Your task to perform on an android device: turn on showing notifications on the lock screen Image 0: 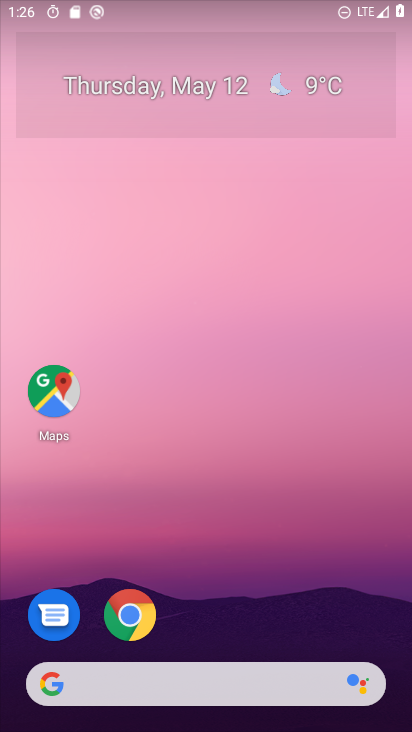
Step 0: drag from (306, 592) to (302, 116)
Your task to perform on an android device: turn on showing notifications on the lock screen Image 1: 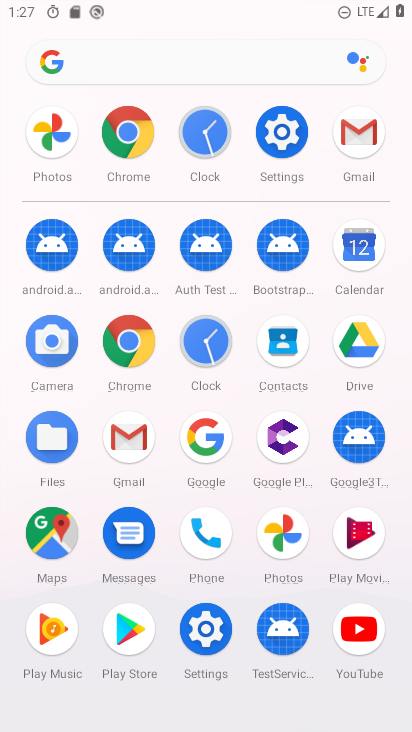
Step 1: click (289, 128)
Your task to perform on an android device: turn on showing notifications on the lock screen Image 2: 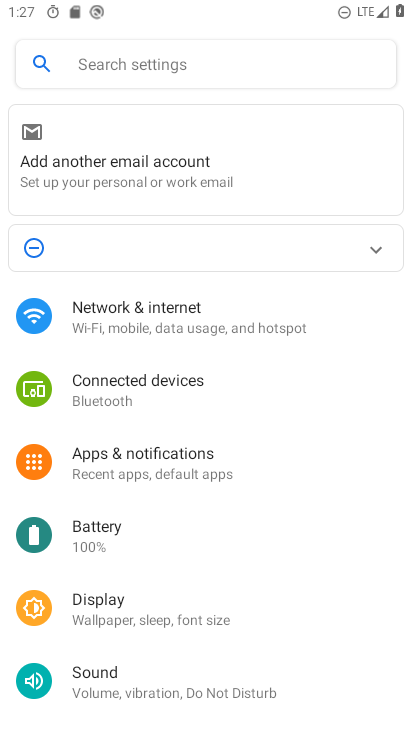
Step 2: drag from (256, 595) to (337, 118)
Your task to perform on an android device: turn on showing notifications on the lock screen Image 3: 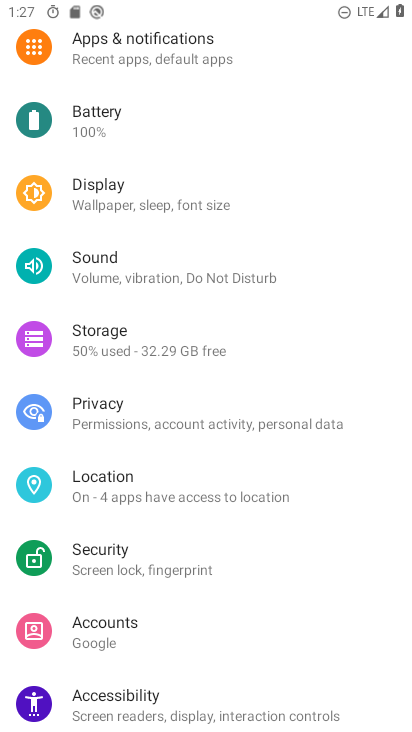
Step 3: drag from (226, 593) to (226, 686)
Your task to perform on an android device: turn on showing notifications on the lock screen Image 4: 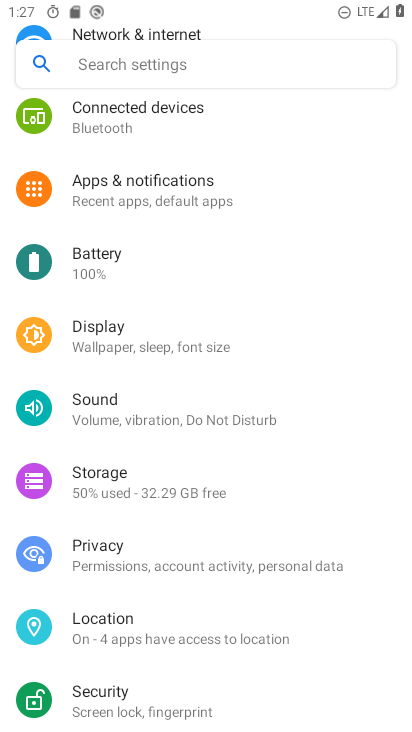
Step 4: click (198, 194)
Your task to perform on an android device: turn on showing notifications on the lock screen Image 5: 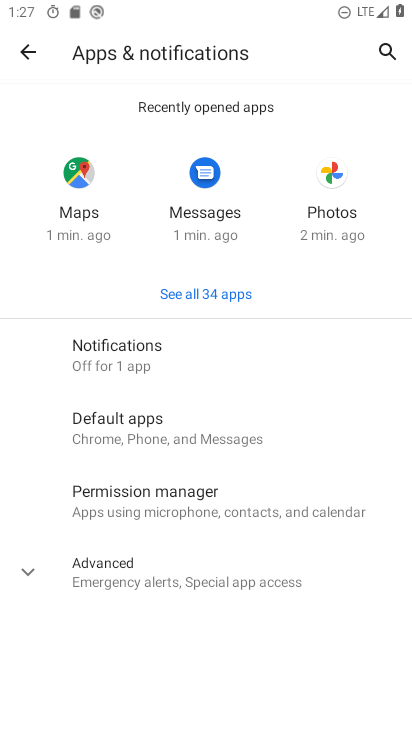
Step 5: click (172, 365)
Your task to perform on an android device: turn on showing notifications on the lock screen Image 6: 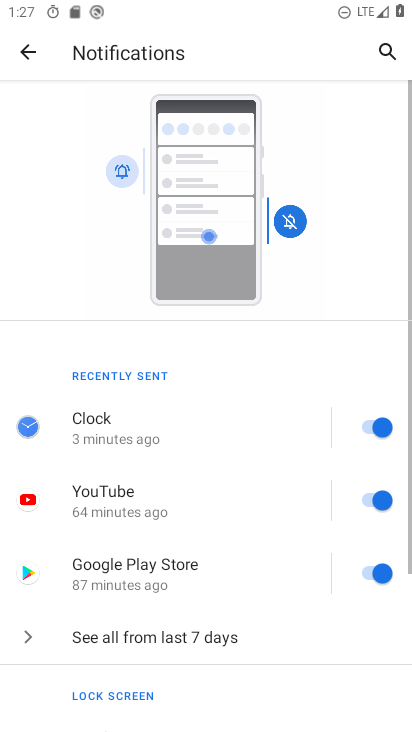
Step 6: drag from (202, 627) to (250, 161)
Your task to perform on an android device: turn on showing notifications on the lock screen Image 7: 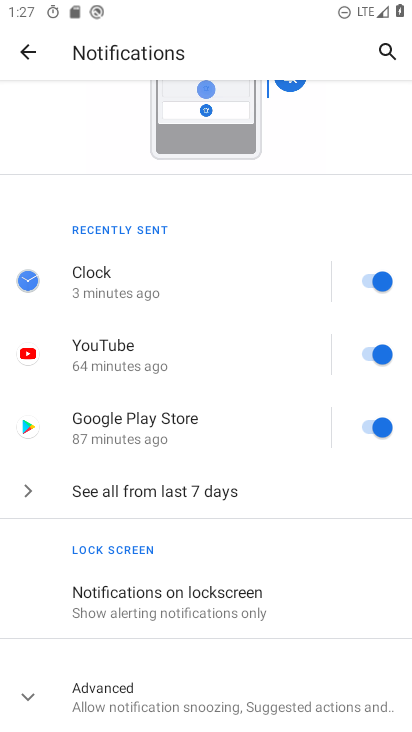
Step 7: drag from (248, 455) to (270, 101)
Your task to perform on an android device: turn on showing notifications on the lock screen Image 8: 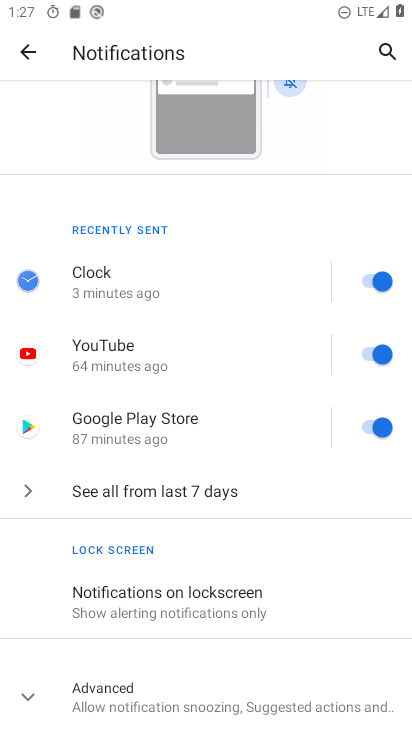
Step 8: click (232, 596)
Your task to perform on an android device: turn on showing notifications on the lock screen Image 9: 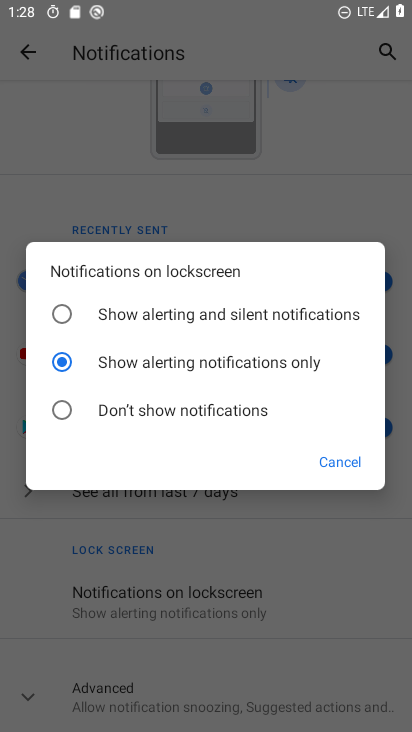
Step 9: task complete